Your task to perform on an android device: turn on sleep mode Image 0: 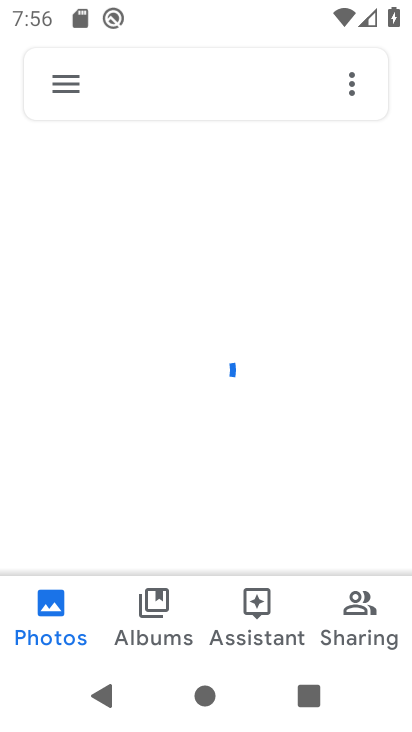
Step 0: press back button
Your task to perform on an android device: turn on sleep mode Image 1: 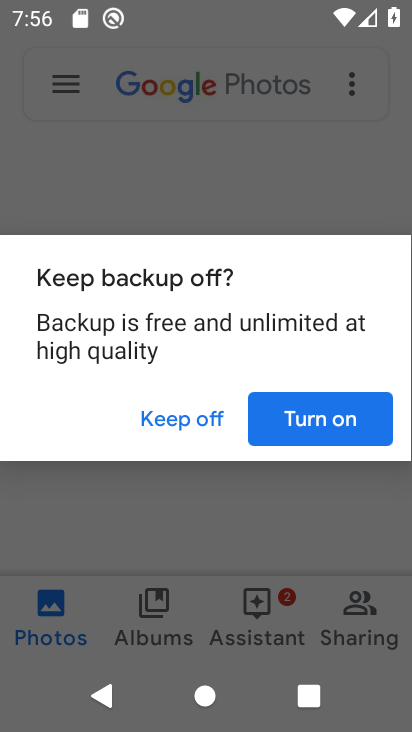
Step 1: press home button
Your task to perform on an android device: turn on sleep mode Image 2: 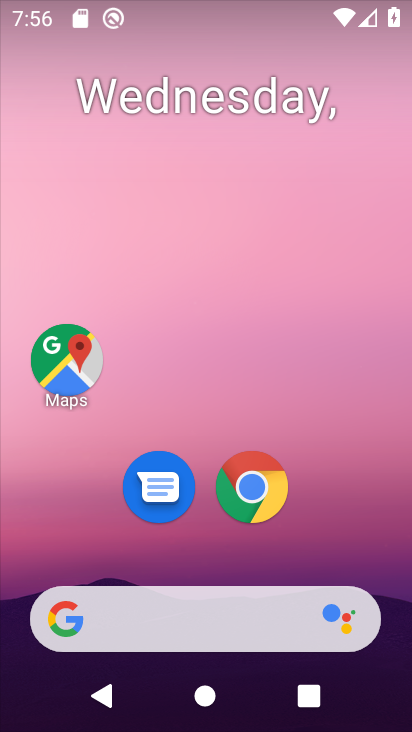
Step 2: drag from (345, 497) to (266, 77)
Your task to perform on an android device: turn on sleep mode Image 3: 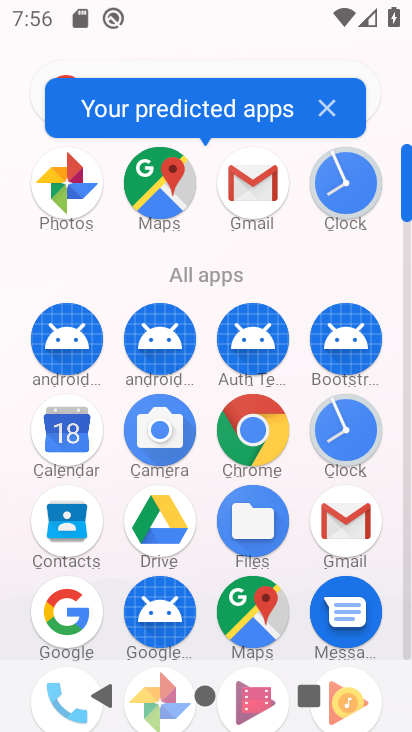
Step 3: drag from (198, 486) to (204, 273)
Your task to perform on an android device: turn on sleep mode Image 4: 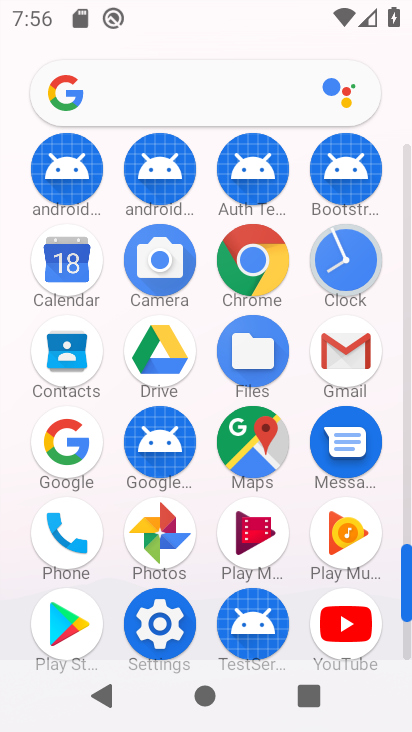
Step 4: drag from (201, 422) to (222, 177)
Your task to perform on an android device: turn on sleep mode Image 5: 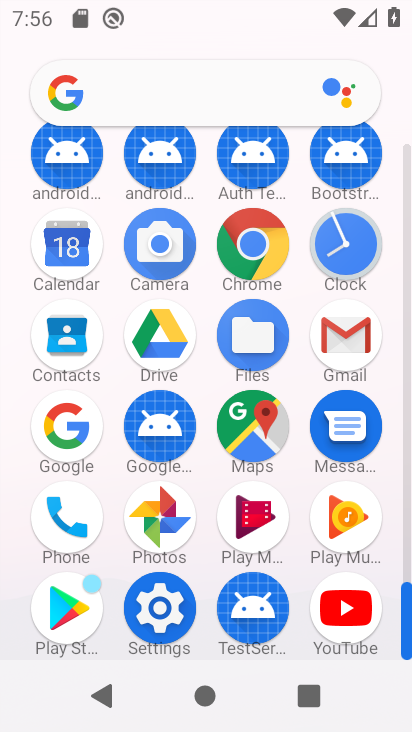
Step 5: click (161, 604)
Your task to perform on an android device: turn on sleep mode Image 6: 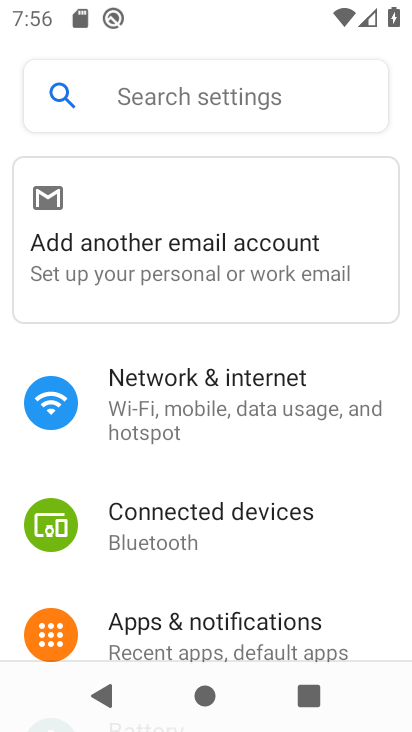
Step 6: drag from (208, 567) to (252, 467)
Your task to perform on an android device: turn on sleep mode Image 7: 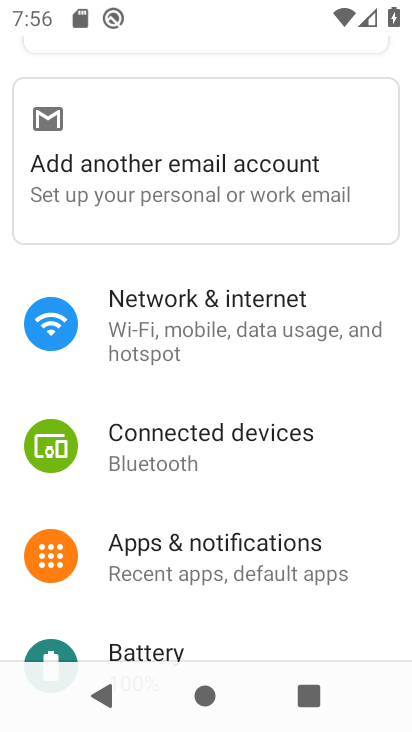
Step 7: drag from (255, 625) to (293, 516)
Your task to perform on an android device: turn on sleep mode Image 8: 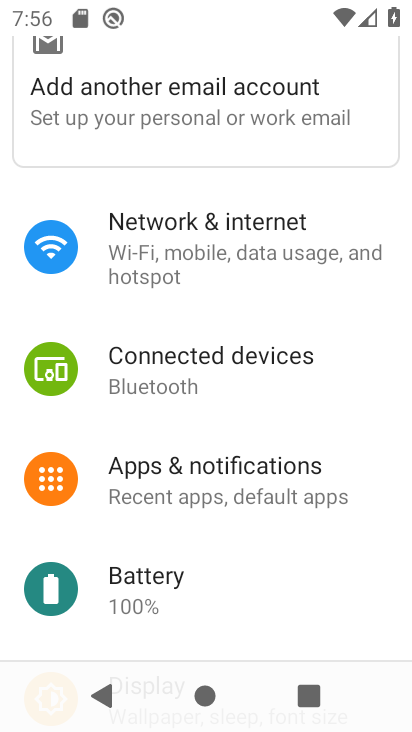
Step 8: drag from (192, 549) to (228, 437)
Your task to perform on an android device: turn on sleep mode Image 9: 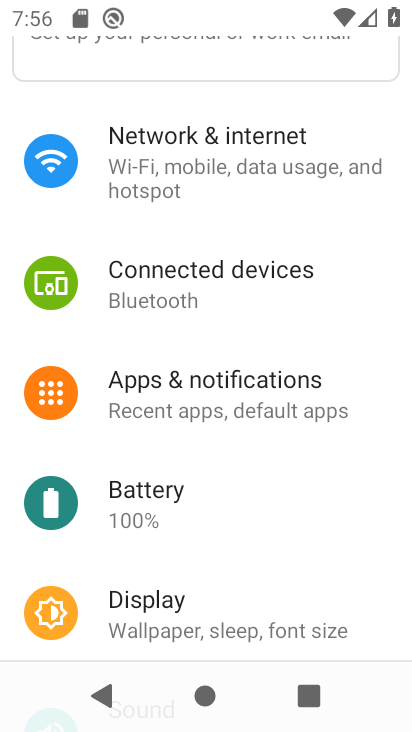
Step 9: drag from (229, 583) to (265, 469)
Your task to perform on an android device: turn on sleep mode Image 10: 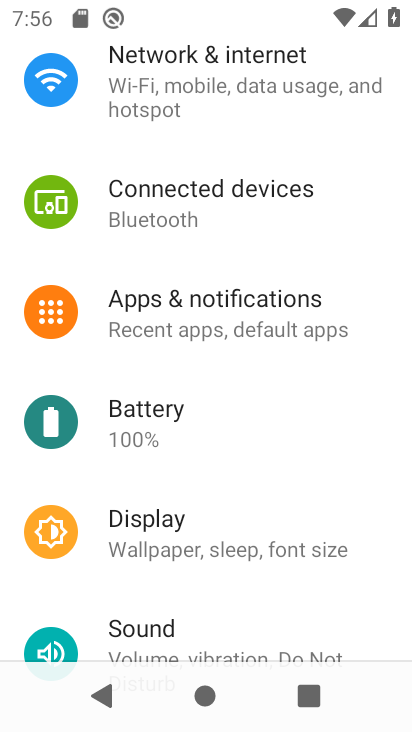
Step 10: click (204, 560)
Your task to perform on an android device: turn on sleep mode Image 11: 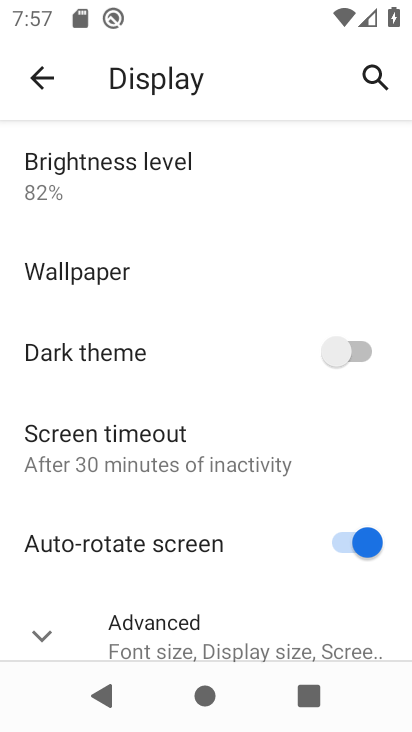
Step 11: click (210, 469)
Your task to perform on an android device: turn on sleep mode Image 12: 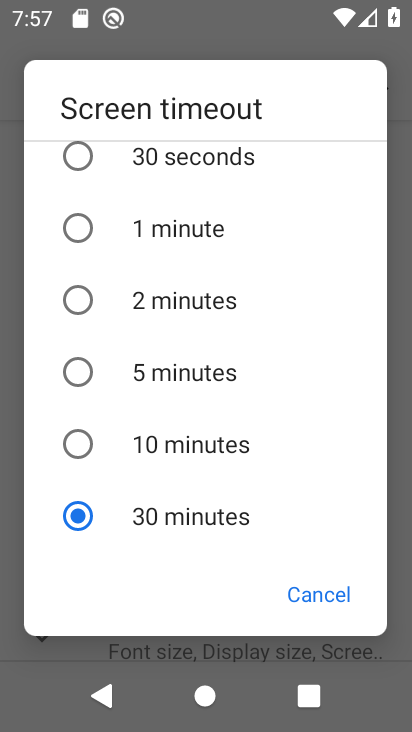
Step 12: drag from (299, 262) to (327, 399)
Your task to perform on an android device: turn on sleep mode Image 13: 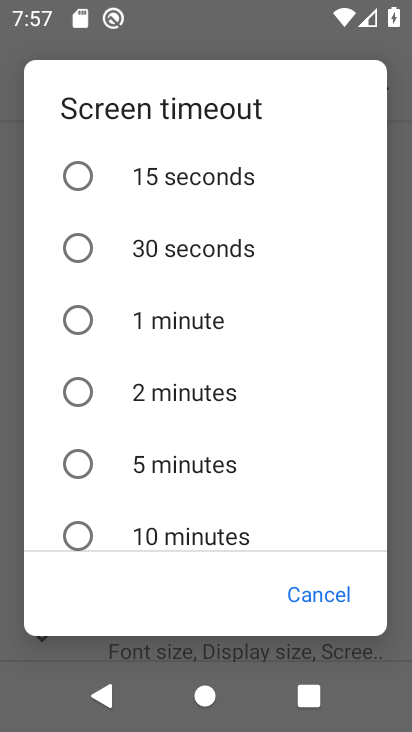
Step 13: click (329, 592)
Your task to perform on an android device: turn on sleep mode Image 14: 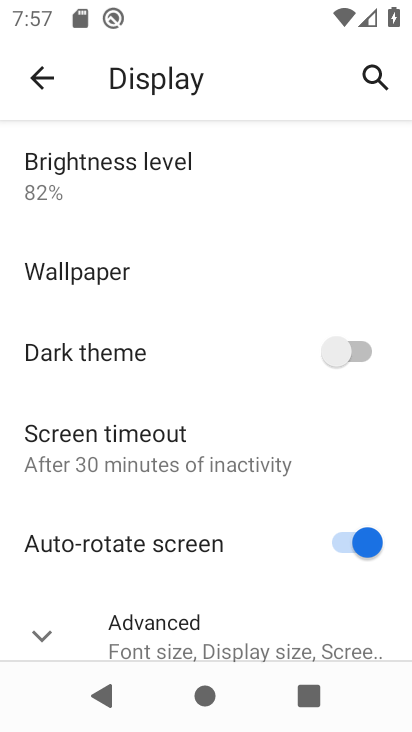
Step 14: click (183, 625)
Your task to perform on an android device: turn on sleep mode Image 15: 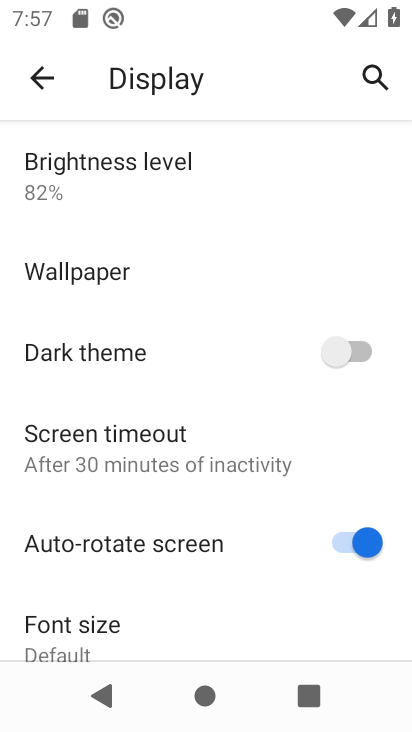
Step 15: task complete